Your task to perform on an android device: set an alarm Image 0: 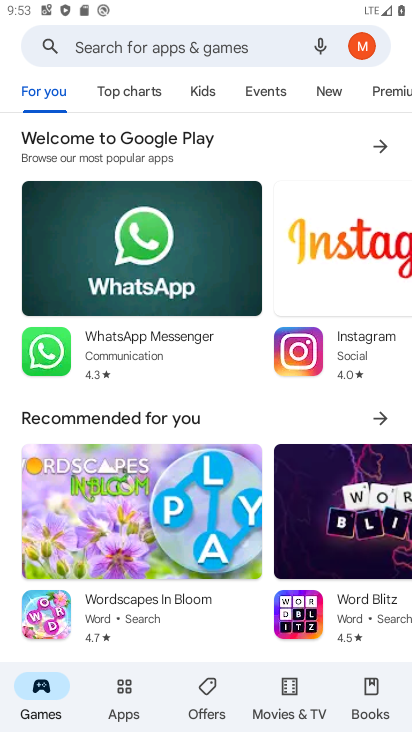
Step 0: press home button
Your task to perform on an android device: set an alarm Image 1: 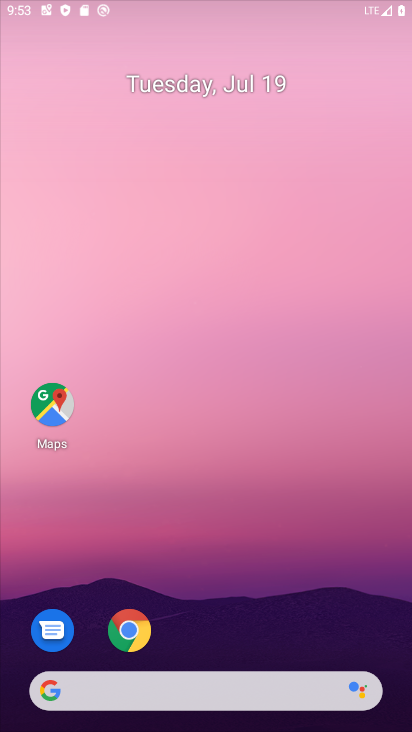
Step 1: drag from (212, 617) to (198, 69)
Your task to perform on an android device: set an alarm Image 2: 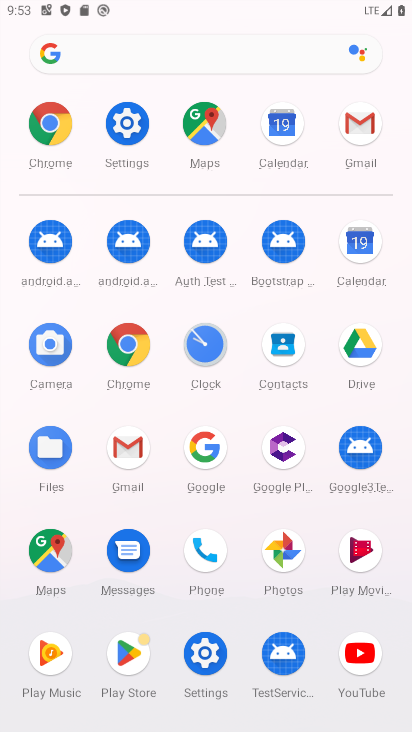
Step 2: click (206, 344)
Your task to perform on an android device: set an alarm Image 3: 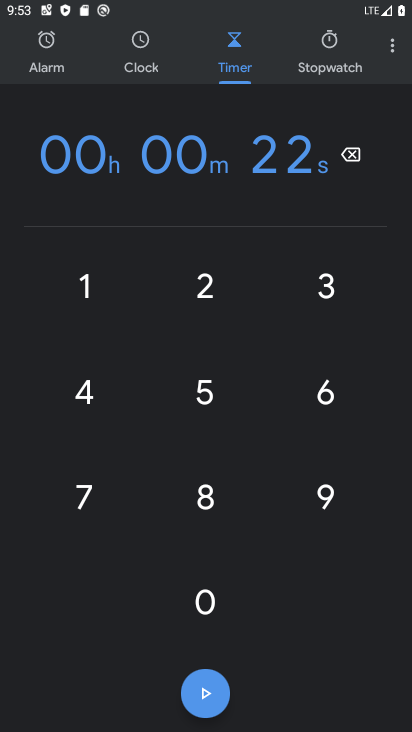
Step 3: click (61, 72)
Your task to perform on an android device: set an alarm Image 4: 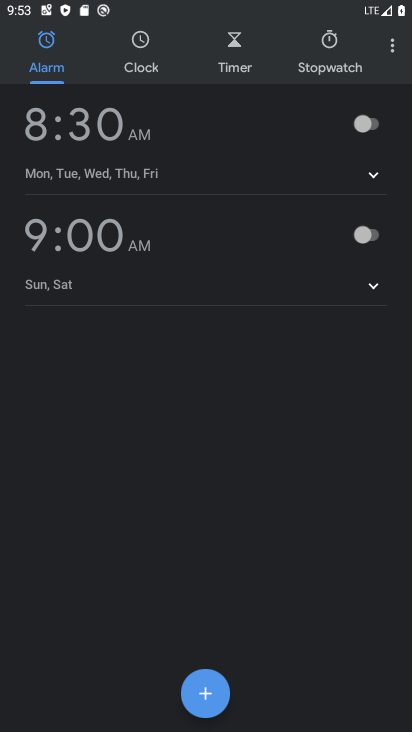
Step 4: click (369, 124)
Your task to perform on an android device: set an alarm Image 5: 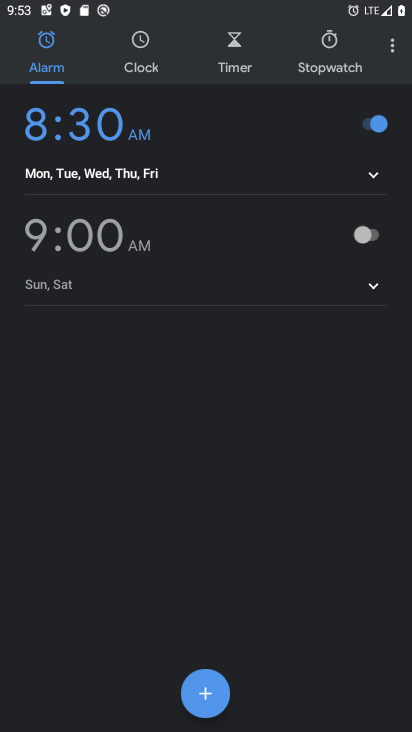
Step 5: task complete